Your task to perform on an android device: change notification settings in the gmail app Image 0: 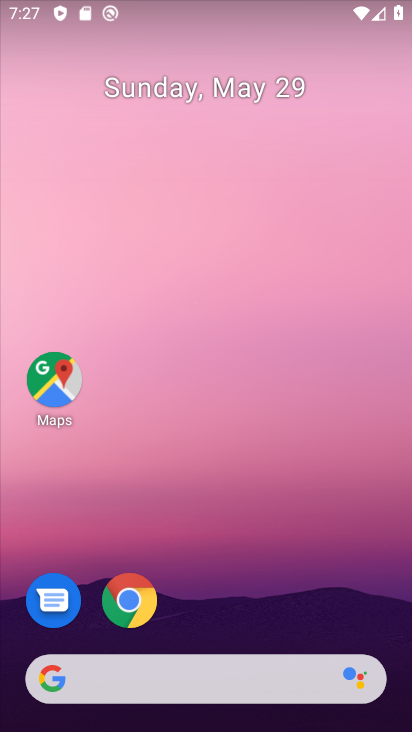
Step 0: drag from (206, 600) to (290, 0)
Your task to perform on an android device: change notification settings in the gmail app Image 1: 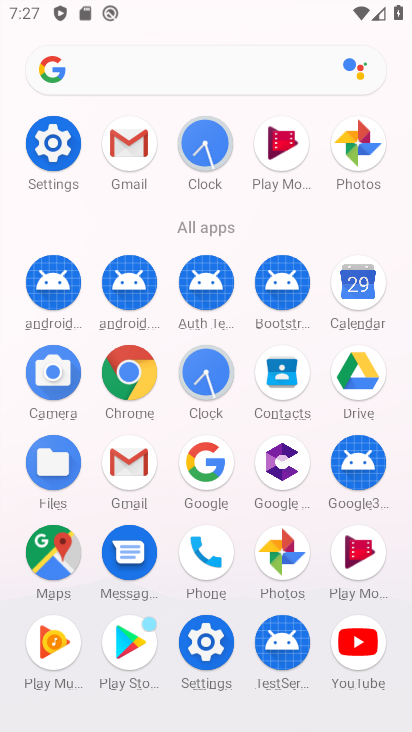
Step 1: click (124, 470)
Your task to perform on an android device: change notification settings in the gmail app Image 2: 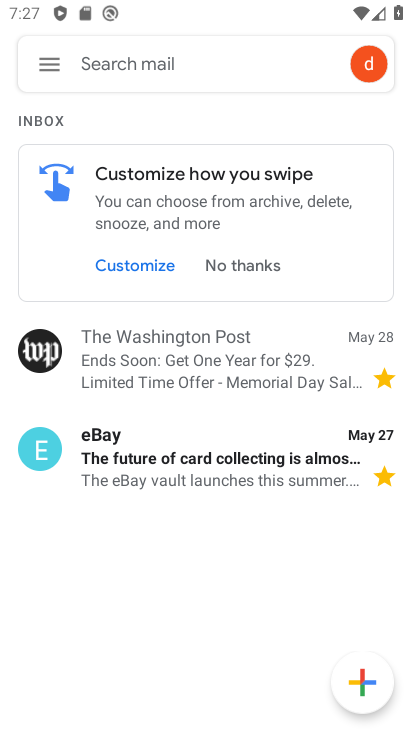
Step 2: click (51, 56)
Your task to perform on an android device: change notification settings in the gmail app Image 3: 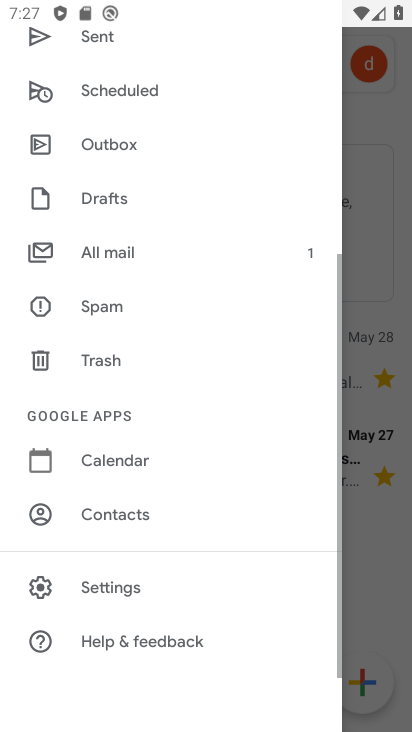
Step 3: click (114, 583)
Your task to perform on an android device: change notification settings in the gmail app Image 4: 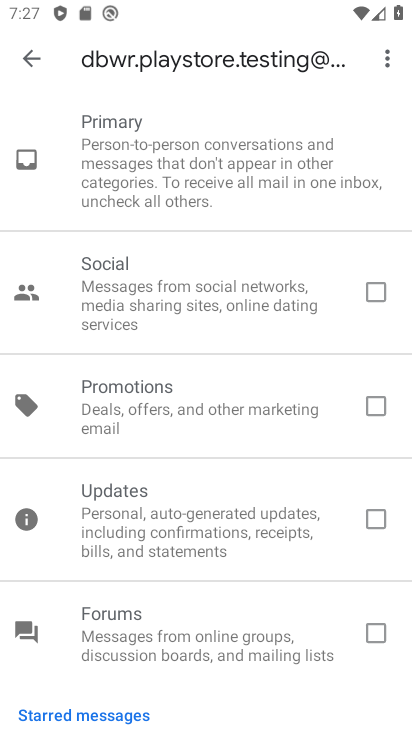
Step 4: click (23, 47)
Your task to perform on an android device: change notification settings in the gmail app Image 5: 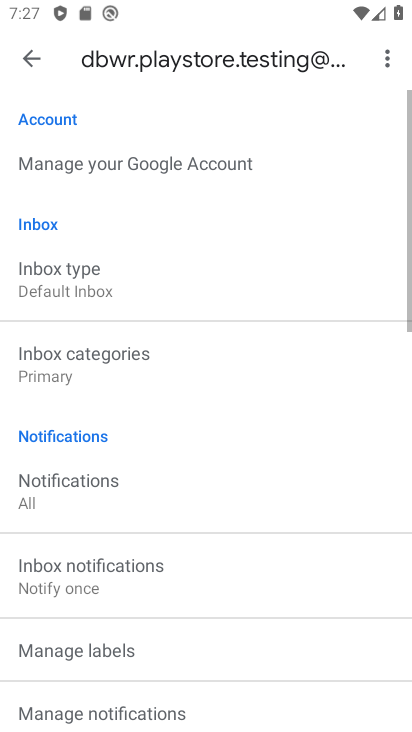
Step 5: click (25, 56)
Your task to perform on an android device: change notification settings in the gmail app Image 6: 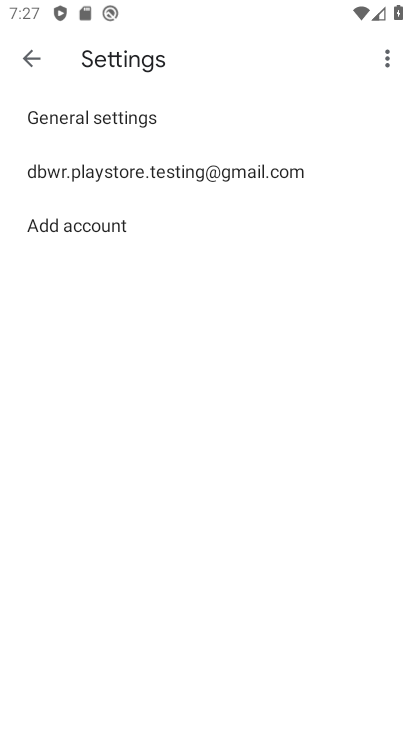
Step 6: click (109, 121)
Your task to perform on an android device: change notification settings in the gmail app Image 7: 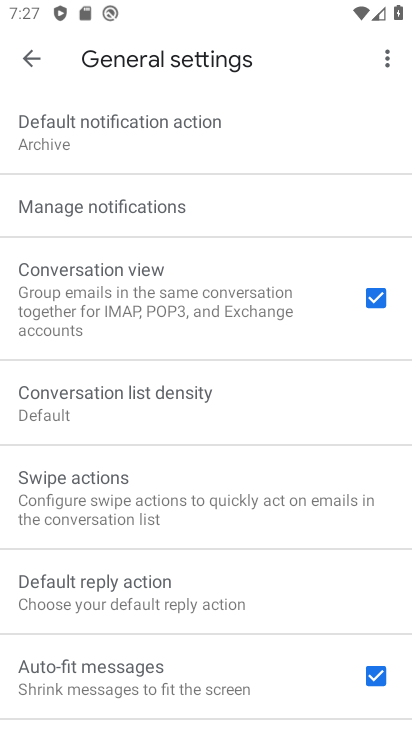
Step 7: click (130, 214)
Your task to perform on an android device: change notification settings in the gmail app Image 8: 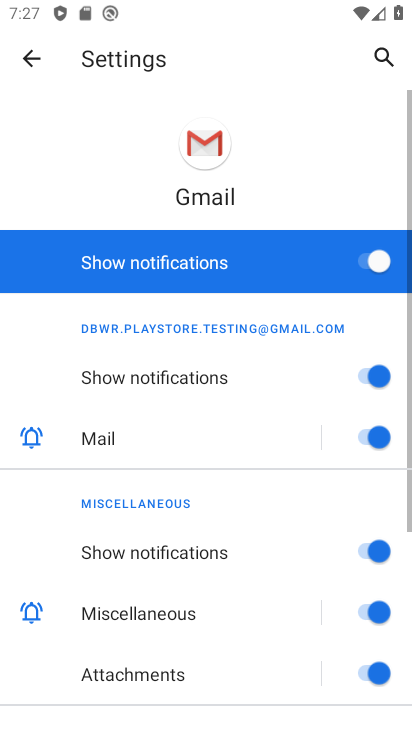
Step 8: click (337, 266)
Your task to perform on an android device: change notification settings in the gmail app Image 9: 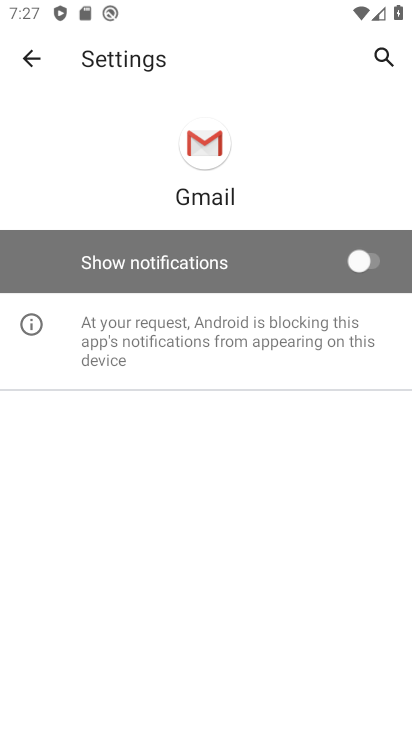
Step 9: task complete